Your task to perform on an android device: open app "LiveIn - Share Your Moment" (install if not already installed) Image 0: 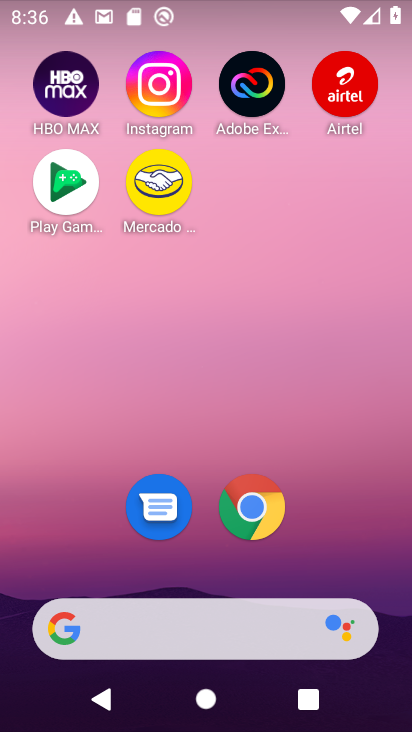
Step 0: drag from (179, 571) to (313, 42)
Your task to perform on an android device: open app "LiveIn - Share Your Moment" (install if not already installed) Image 1: 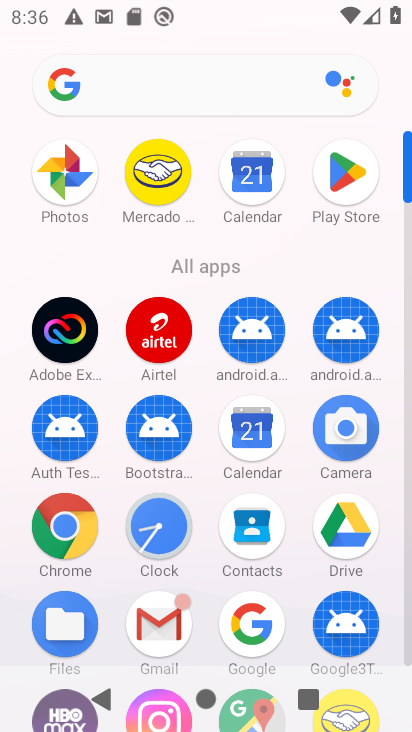
Step 1: click (345, 164)
Your task to perform on an android device: open app "LiveIn - Share Your Moment" (install if not already installed) Image 2: 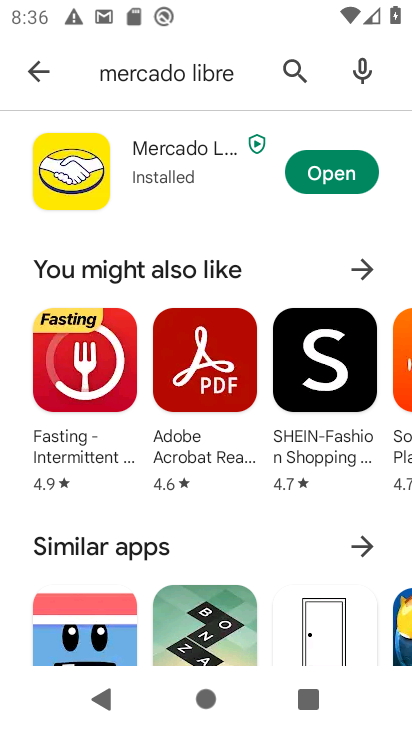
Step 2: click (34, 71)
Your task to perform on an android device: open app "LiveIn - Share Your Moment" (install if not already installed) Image 3: 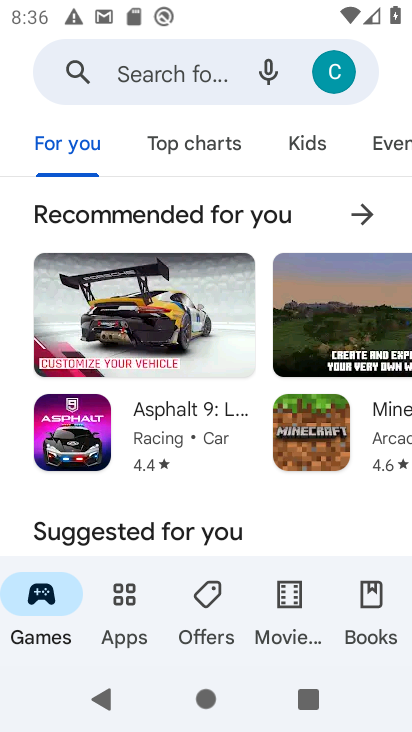
Step 3: click (167, 73)
Your task to perform on an android device: open app "LiveIn - Share Your Moment" (install if not already installed) Image 4: 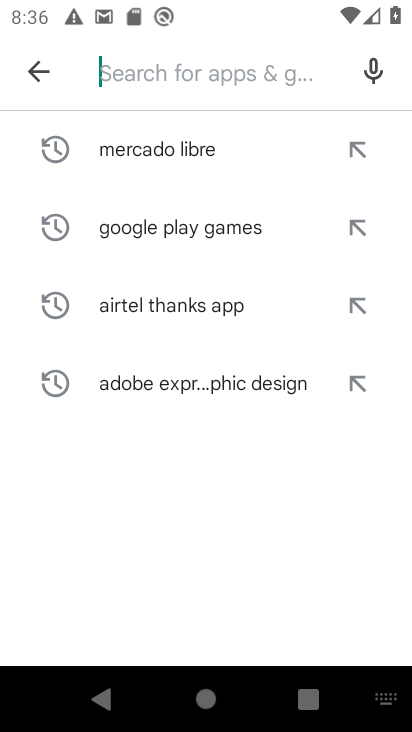
Step 4: type "LiveIn"
Your task to perform on an android device: open app "LiveIn - Share Your Moment" (install if not already installed) Image 5: 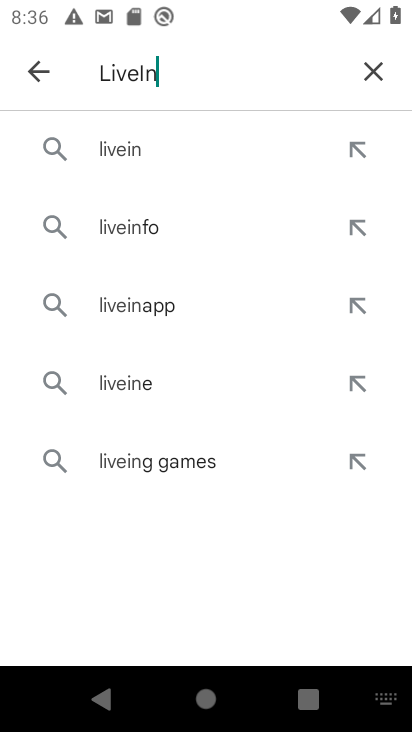
Step 5: click (111, 144)
Your task to perform on an android device: open app "LiveIn - Share Your Moment" (install if not already installed) Image 6: 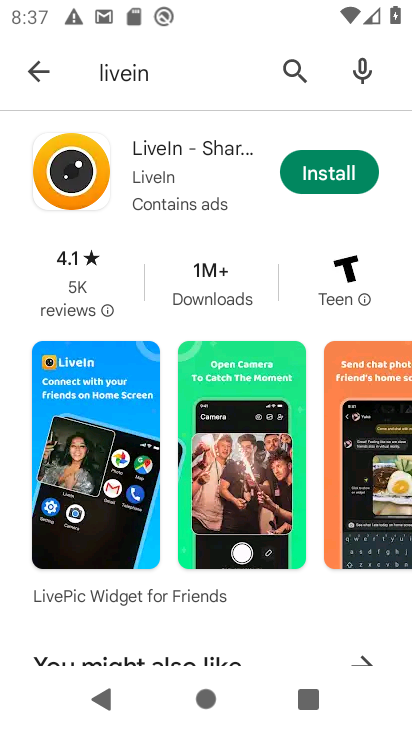
Step 6: click (307, 178)
Your task to perform on an android device: open app "LiveIn - Share Your Moment" (install if not already installed) Image 7: 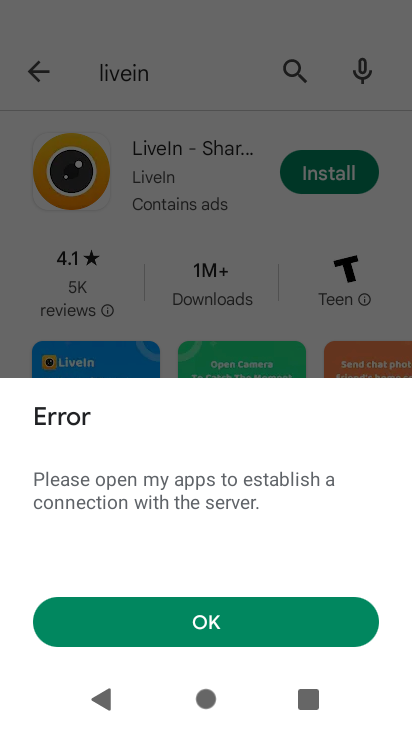
Step 7: click (202, 627)
Your task to perform on an android device: open app "LiveIn - Share Your Moment" (install if not already installed) Image 8: 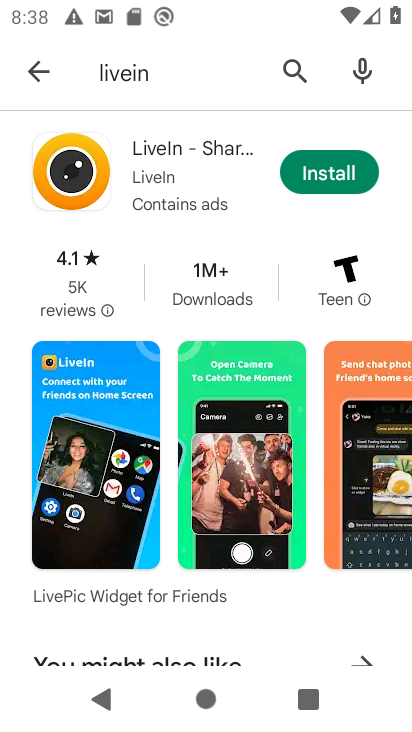
Step 8: click (310, 172)
Your task to perform on an android device: open app "LiveIn - Share Your Moment" (install if not already installed) Image 9: 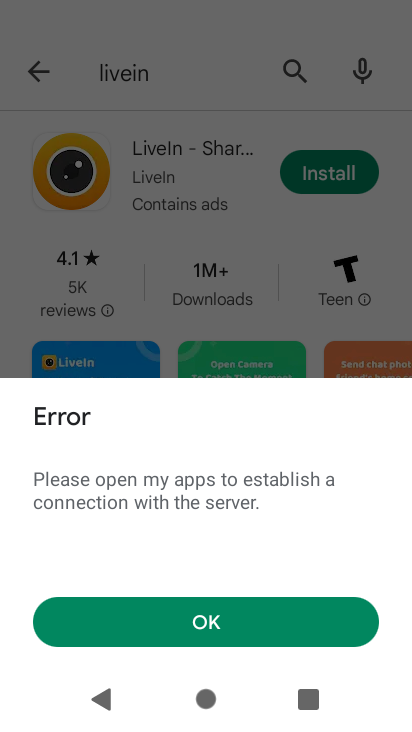
Step 9: click (196, 608)
Your task to perform on an android device: open app "LiveIn - Share Your Moment" (install if not already installed) Image 10: 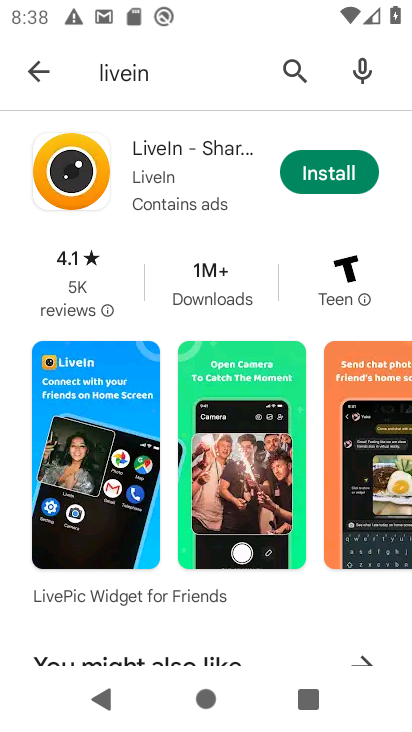
Step 10: task complete